Your task to perform on an android device: Open eBay Image 0: 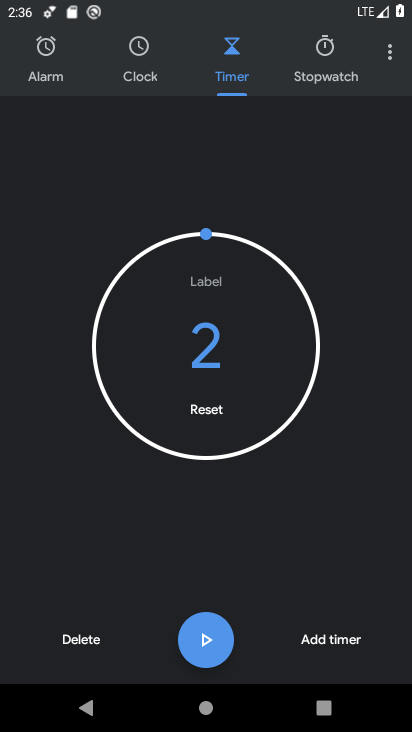
Step 0: press home button
Your task to perform on an android device: Open eBay Image 1: 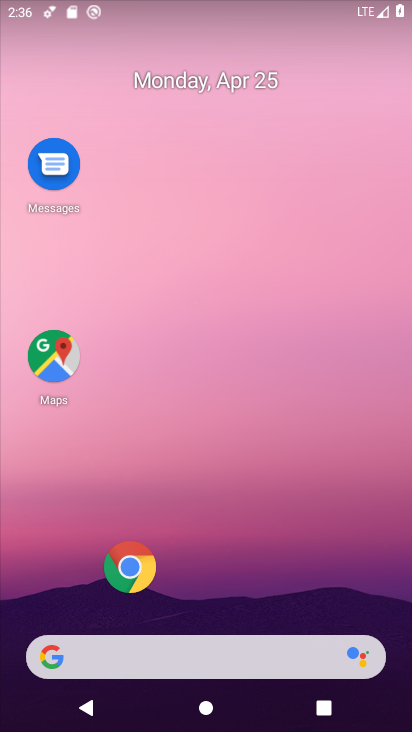
Step 1: click (148, 568)
Your task to perform on an android device: Open eBay Image 2: 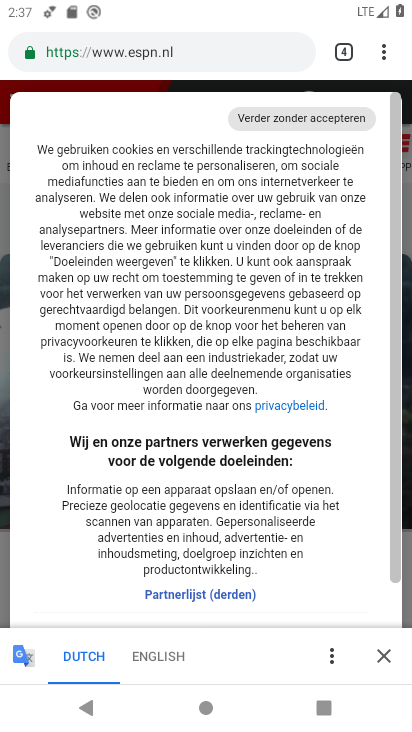
Step 2: press home button
Your task to perform on an android device: Open eBay Image 3: 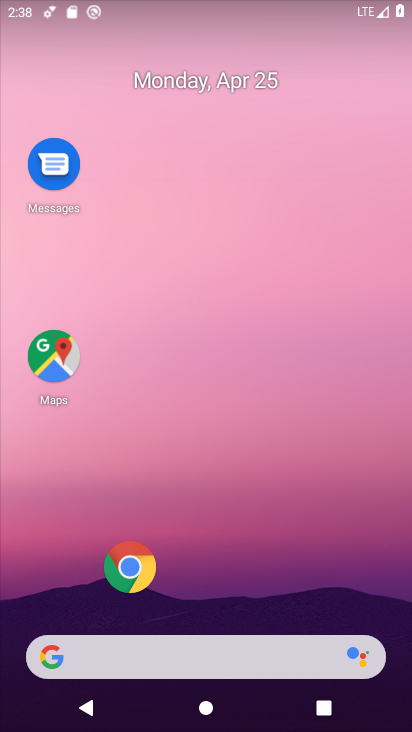
Step 3: click (140, 572)
Your task to perform on an android device: Open eBay Image 4: 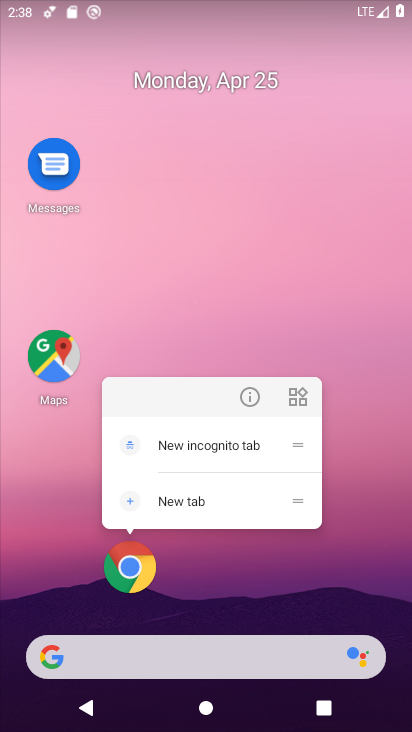
Step 4: click (140, 572)
Your task to perform on an android device: Open eBay Image 5: 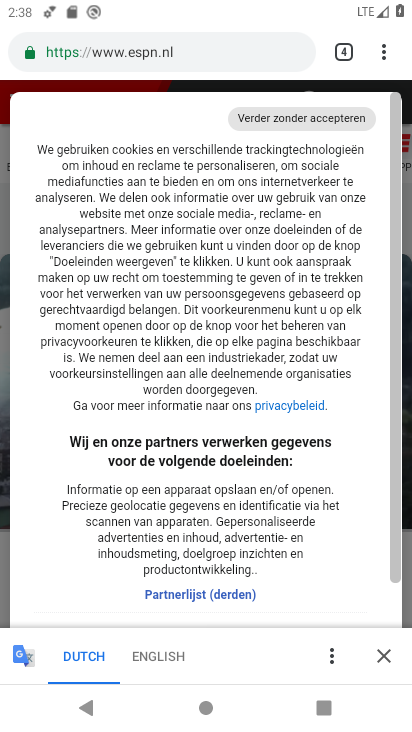
Step 5: click (388, 660)
Your task to perform on an android device: Open eBay Image 6: 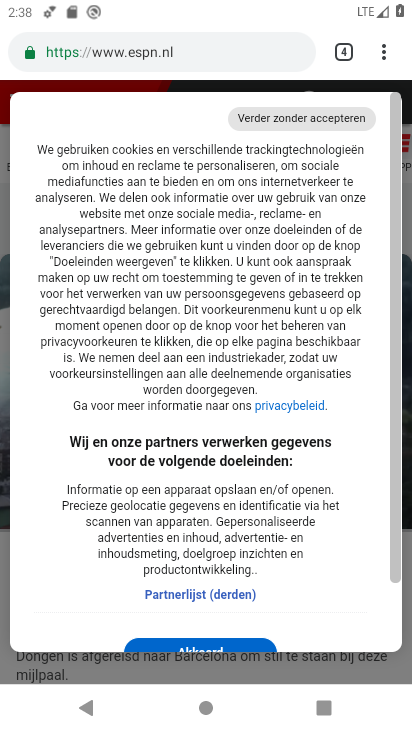
Step 6: drag from (251, 515) to (269, 114)
Your task to perform on an android device: Open eBay Image 7: 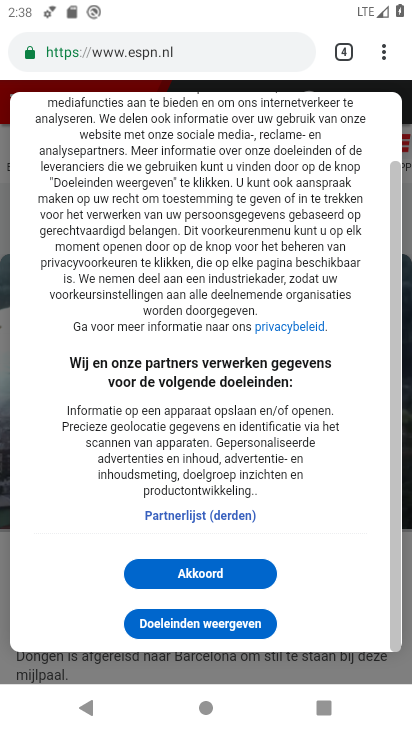
Step 7: click (237, 49)
Your task to perform on an android device: Open eBay Image 8: 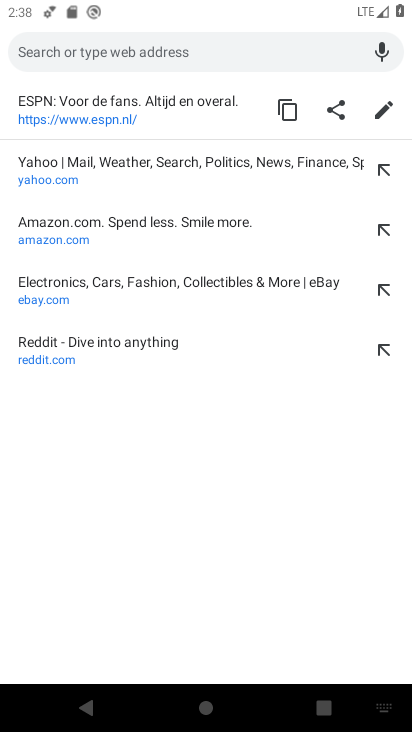
Step 8: click (112, 264)
Your task to perform on an android device: Open eBay Image 9: 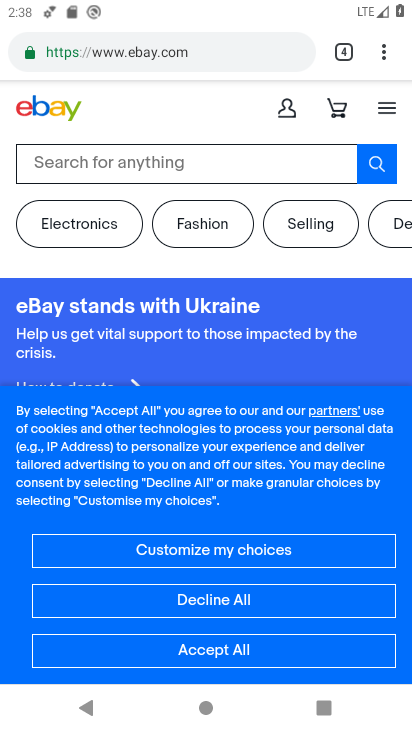
Step 9: task complete